Your task to perform on an android device: open wifi settings Image 0: 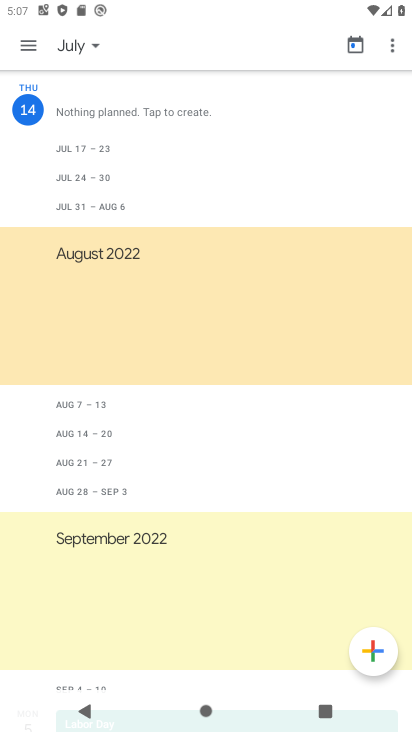
Step 0: press home button
Your task to perform on an android device: open wifi settings Image 1: 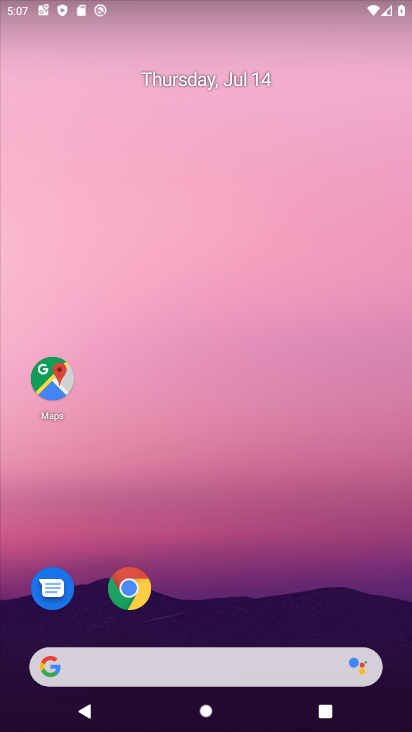
Step 1: drag from (173, 610) to (203, 268)
Your task to perform on an android device: open wifi settings Image 2: 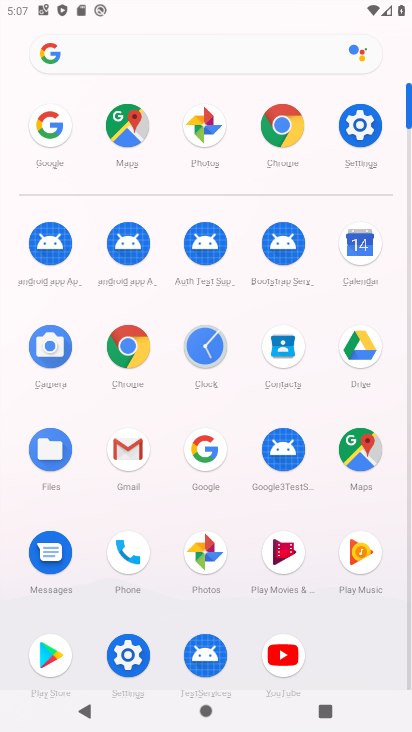
Step 2: click (365, 133)
Your task to perform on an android device: open wifi settings Image 3: 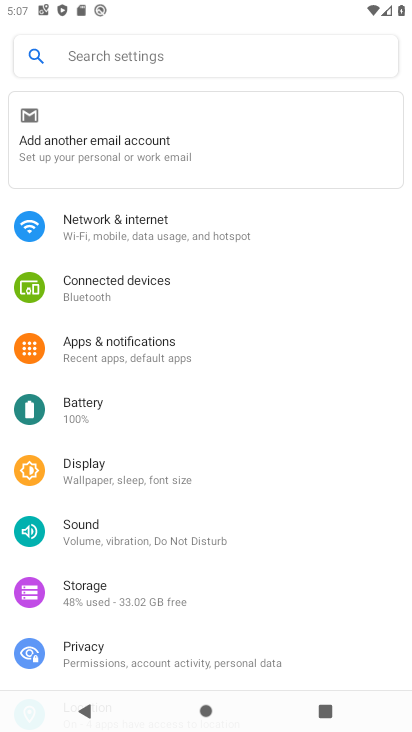
Step 3: click (134, 222)
Your task to perform on an android device: open wifi settings Image 4: 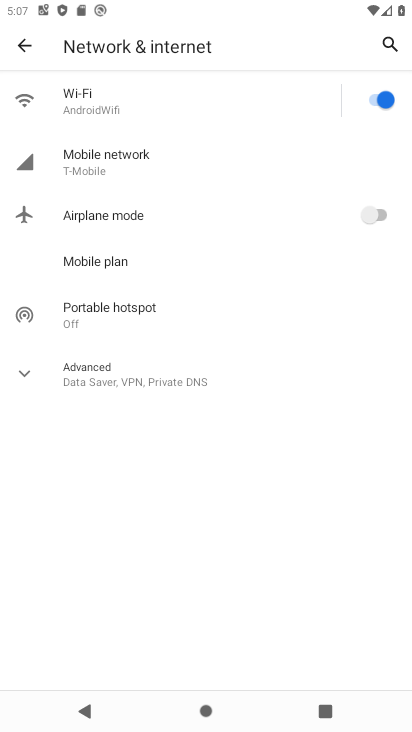
Step 4: click (131, 104)
Your task to perform on an android device: open wifi settings Image 5: 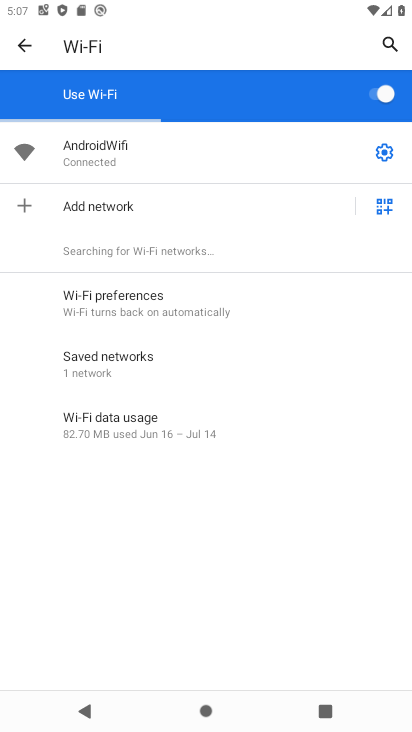
Step 5: click (386, 149)
Your task to perform on an android device: open wifi settings Image 6: 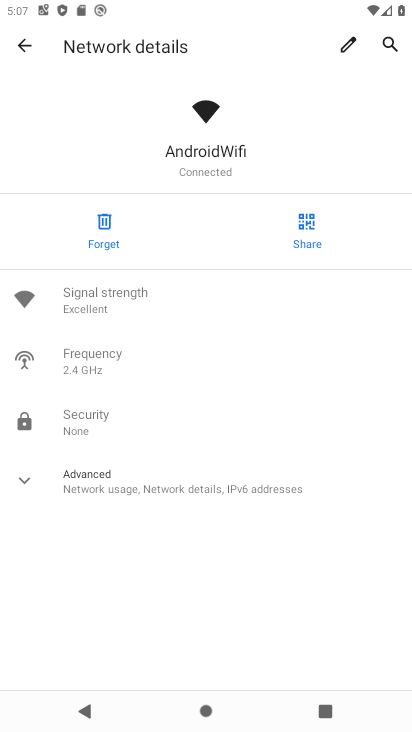
Step 6: click (148, 491)
Your task to perform on an android device: open wifi settings Image 7: 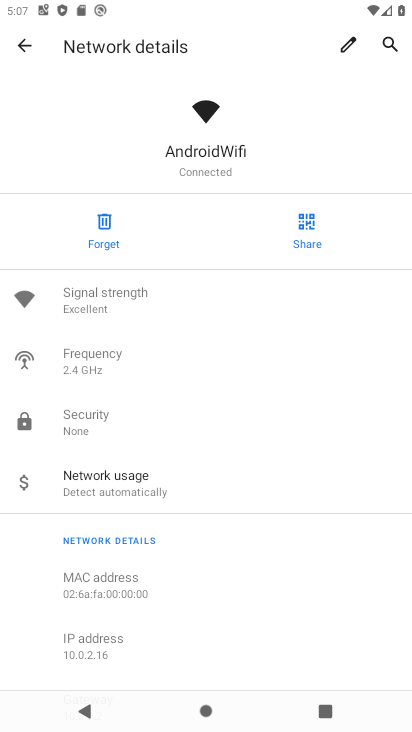
Step 7: task complete